Your task to perform on an android device: open chrome privacy settings Image 0: 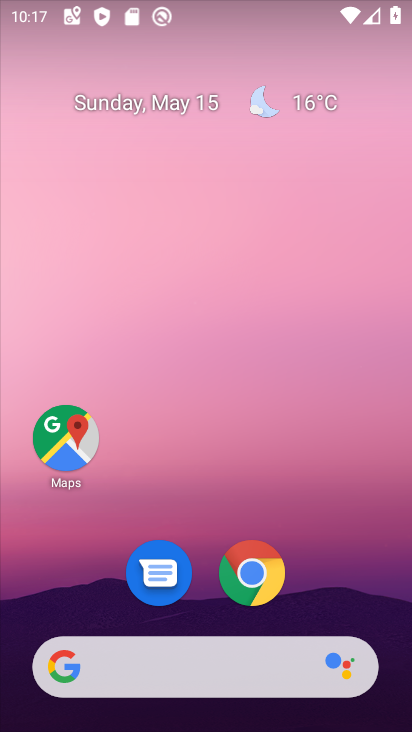
Step 0: click (271, 578)
Your task to perform on an android device: open chrome privacy settings Image 1: 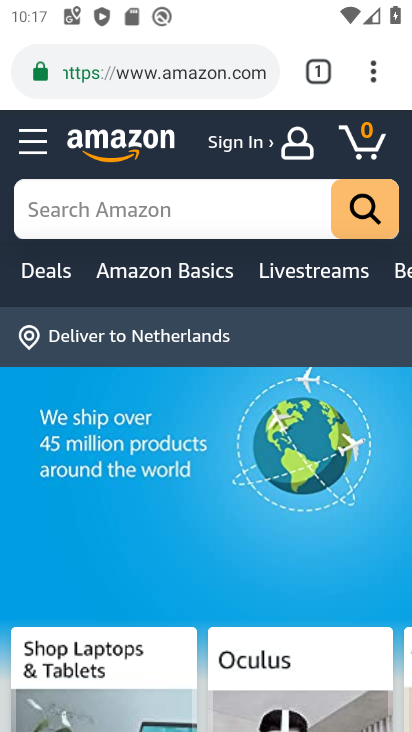
Step 1: drag from (369, 68) to (153, 646)
Your task to perform on an android device: open chrome privacy settings Image 2: 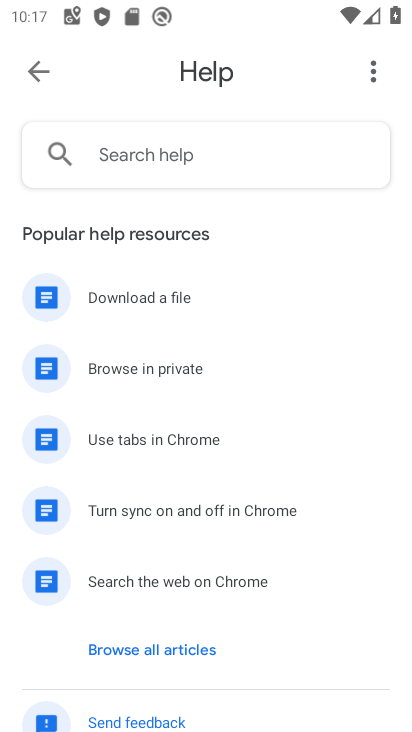
Step 2: click (30, 85)
Your task to perform on an android device: open chrome privacy settings Image 3: 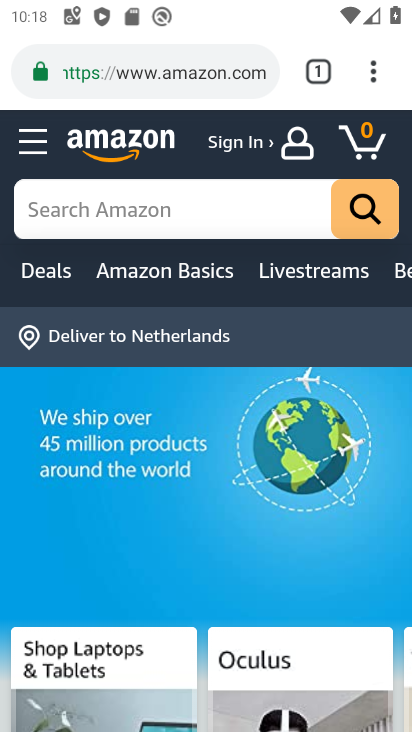
Step 3: drag from (376, 71) to (175, 560)
Your task to perform on an android device: open chrome privacy settings Image 4: 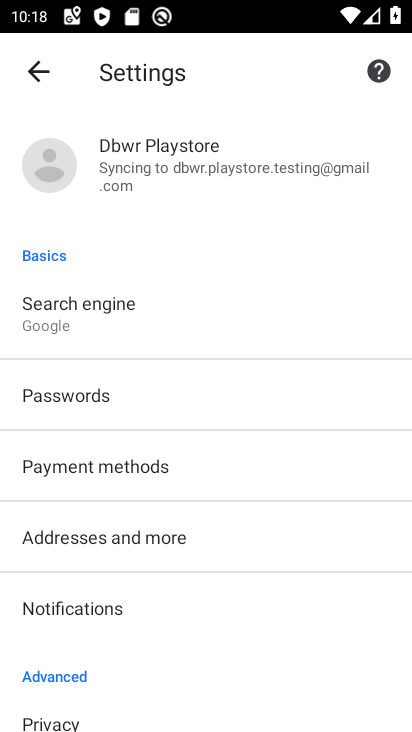
Step 4: drag from (133, 674) to (175, 350)
Your task to perform on an android device: open chrome privacy settings Image 5: 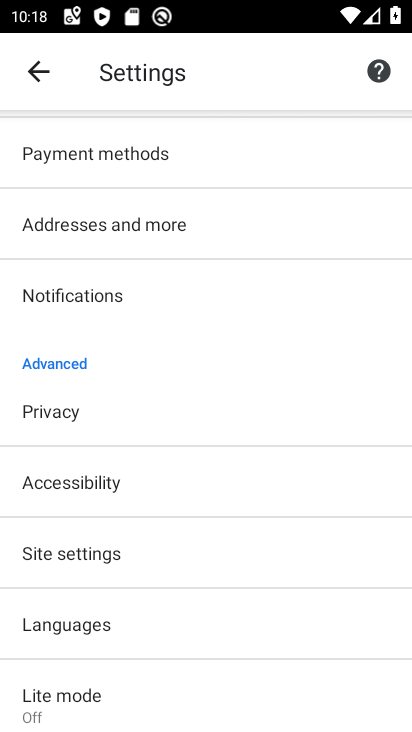
Step 5: click (55, 406)
Your task to perform on an android device: open chrome privacy settings Image 6: 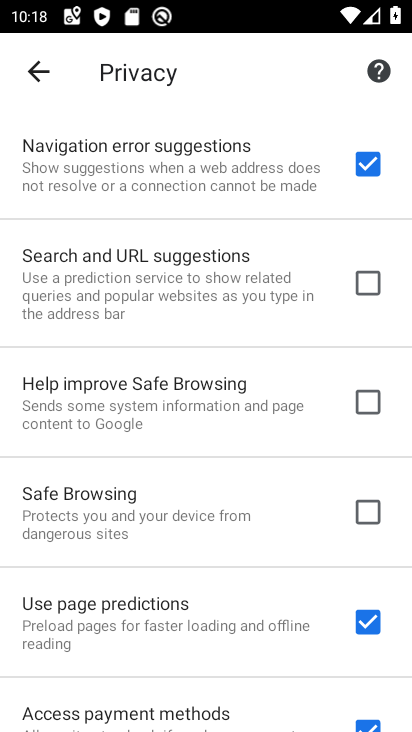
Step 6: task complete